Your task to perform on an android device: Open Maps and search for coffee Image 0: 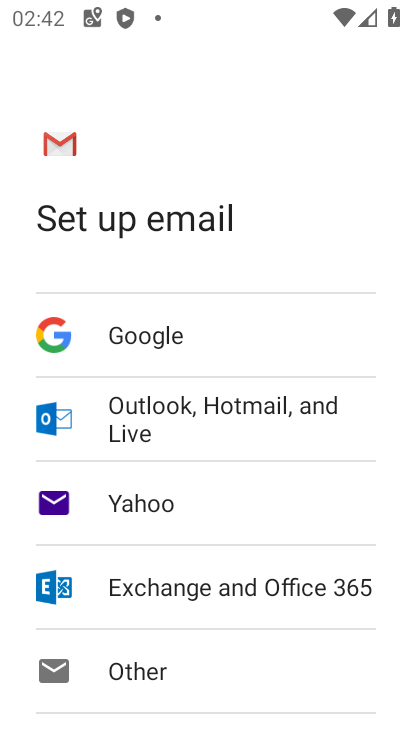
Step 0: press home button
Your task to perform on an android device: Open Maps and search for coffee Image 1: 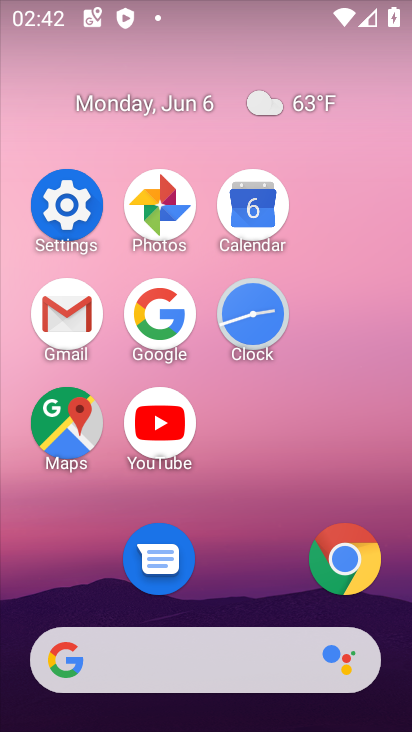
Step 1: click (74, 400)
Your task to perform on an android device: Open Maps and search for coffee Image 2: 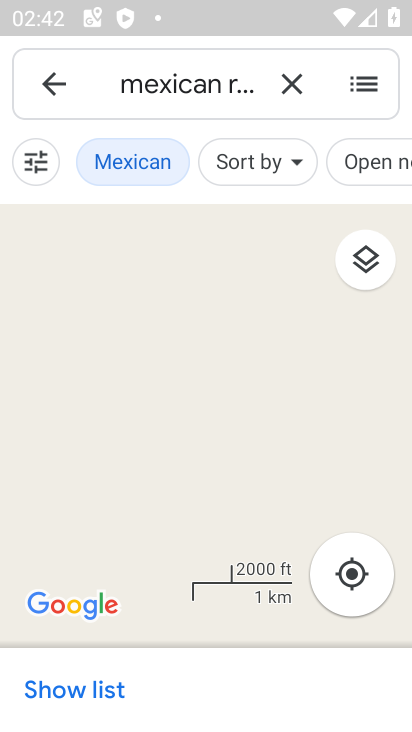
Step 2: click (290, 96)
Your task to perform on an android device: Open Maps and search for coffee Image 3: 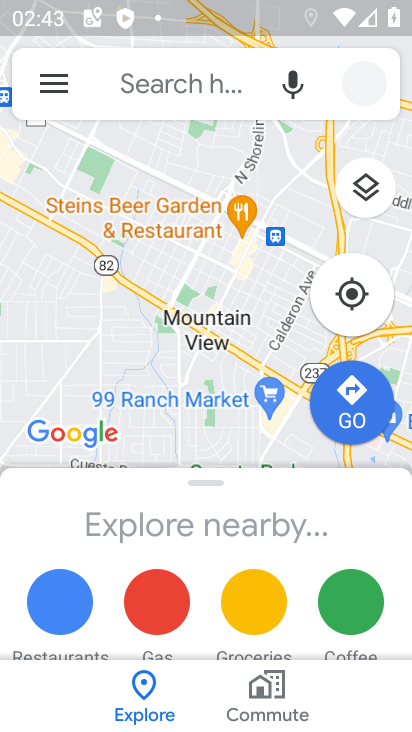
Step 3: click (181, 82)
Your task to perform on an android device: Open Maps and search for coffee Image 4: 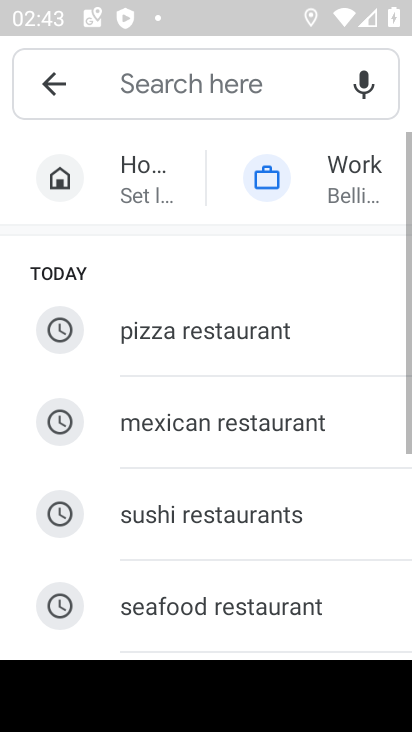
Step 4: drag from (215, 567) to (219, 189)
Your task to perform on an android device: Open Maps and search for coffee Image 5: 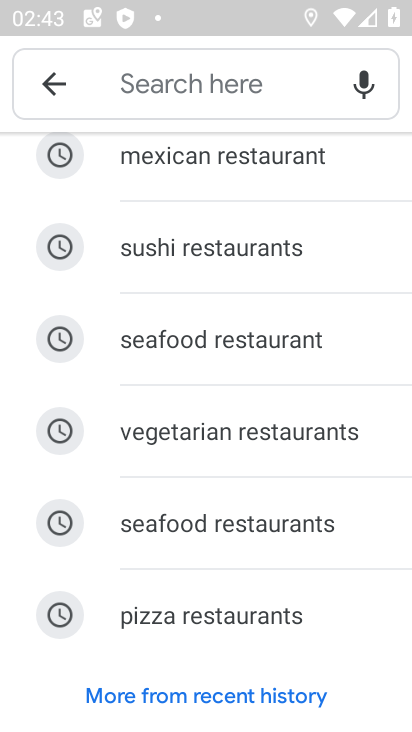
Step 5: click (203, 93)
Your task to perform on an android device: Open Maps and search for coffee Image 6: 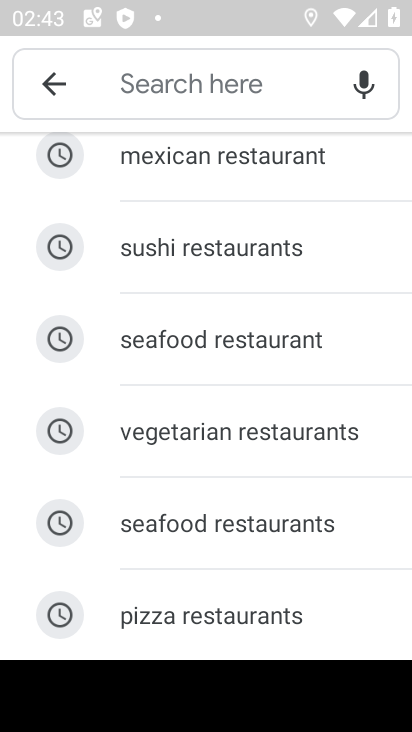
Step 6: type "coffee"
Your task to perform on an android device: Open Maps and search for coffee Image 7: 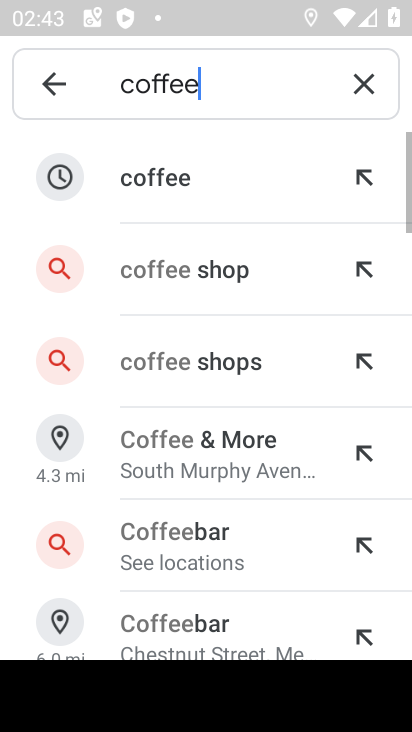
Step 7: task complete